Your task to perform on an android device: turn off picture-in-picture Image 0: 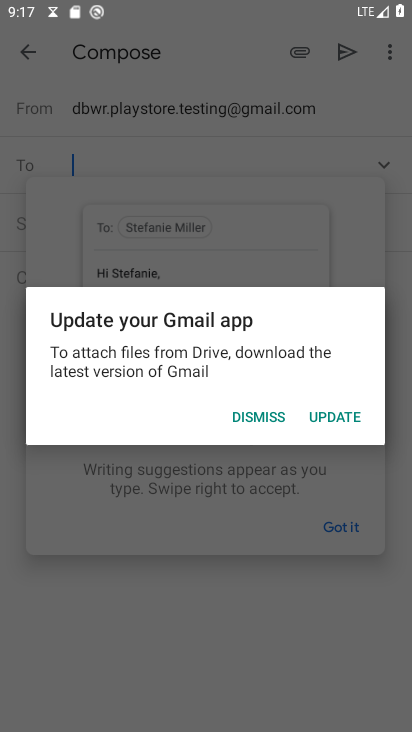
Step 0: press home button
Your task to perform on an android device: turn off picture-in-picture Image 1: 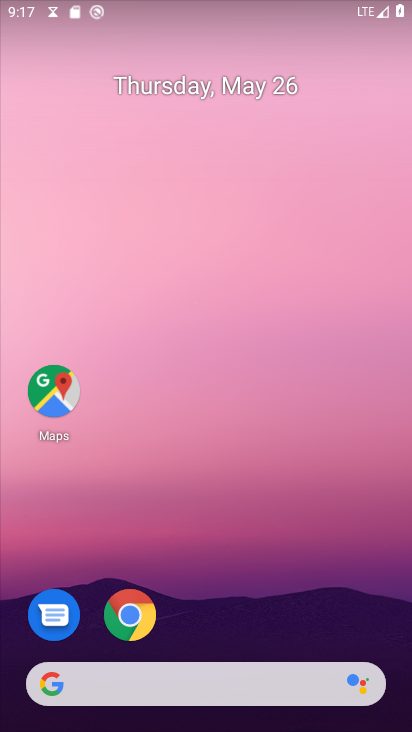
Step 1: drag from (236, 615) to (235, 239)
Your task to perform on an android device: turn off picture-in-picture Image 2: 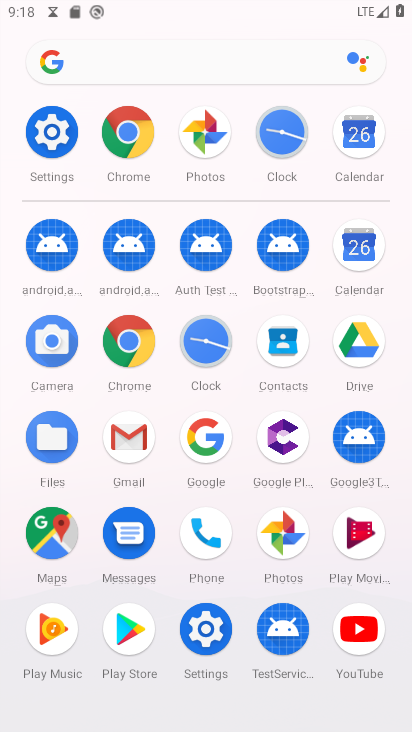
Step 2: click (21, 117)
Your task to perform on an android device: turn off picture-in-picture Image 3: 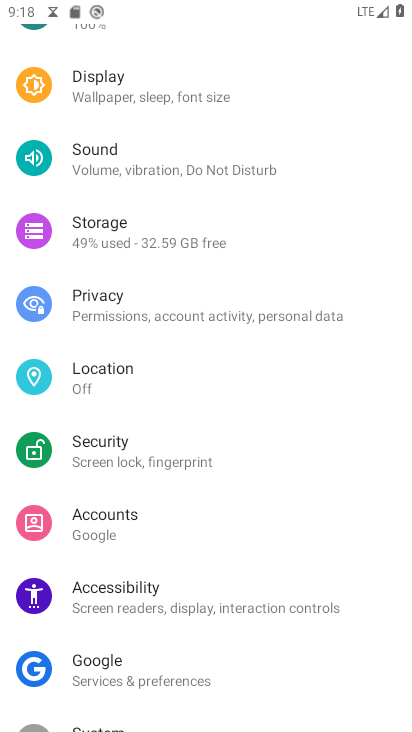
Step 3: drag from (266, 120) to (211, 635)
Your task to perform on an android device: turn off picture-in-picture Image 4: 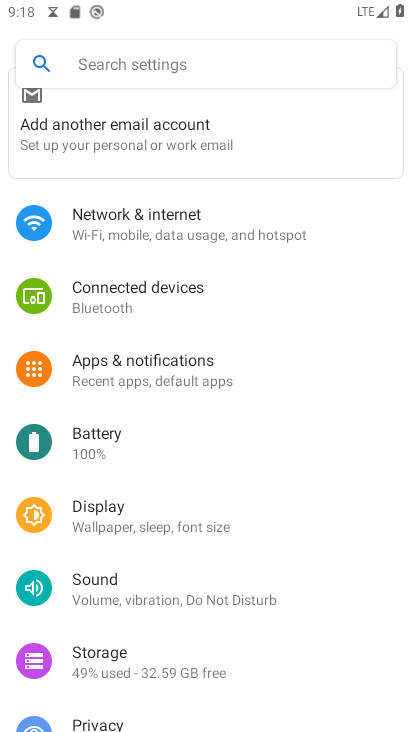
Step 4: click (173, 372)
Your task to perform on an android device: turn off picture-in-picture Image 5: 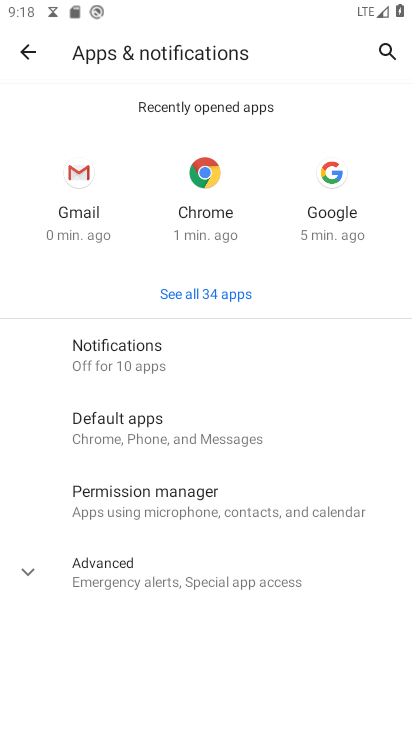
Step 5: click (136, 348)
Your task to perform on an android device: turn off picture-in-picture Image 6: 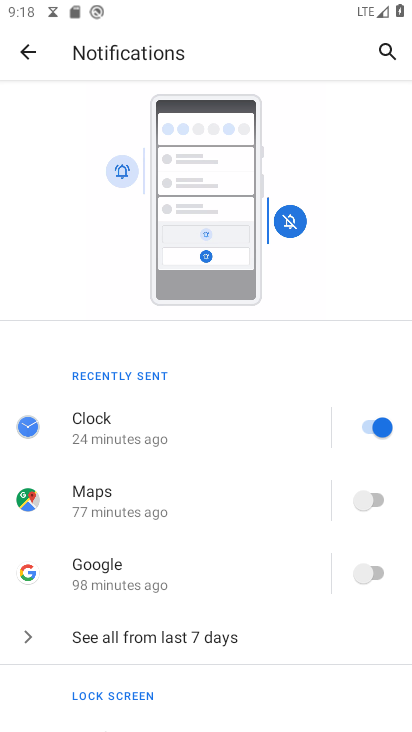
Step 6: drag from (212, 668) to (195, 340)
Your task to perform on an android device: turn off picture-in-picture Image 7: 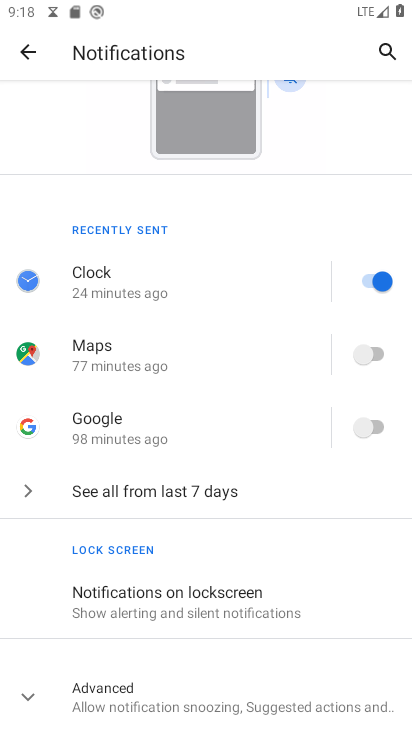
Step 7: click (142, 588)
Your task to perform on an android device: turn off picture-in-picture Image 8: 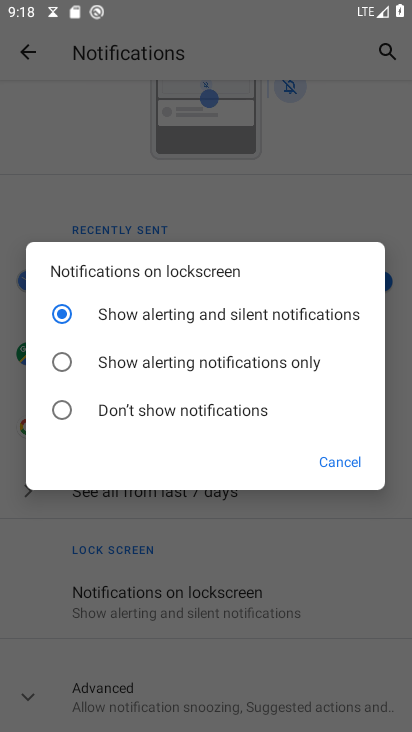
Step 8: click (331, 463)
Your task to perform on an android device: turn off picture-in-picture Image 9: 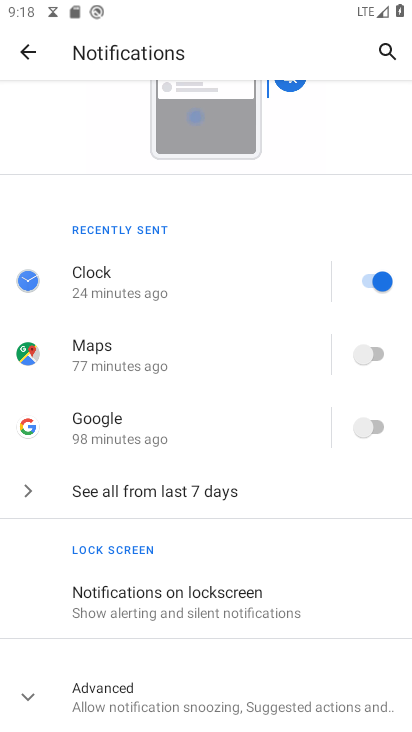
Step 9: drag from (175, 635) to (192, 341)
Your task to perform on an android device: turn off picture-in-picture Image 10: 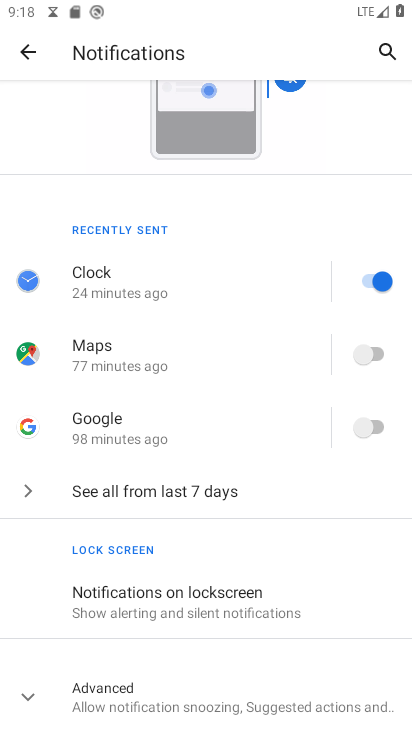
Step 10: click (201, 702)
Your task to perform on an android device: turn off picture-in-picture Image 11: 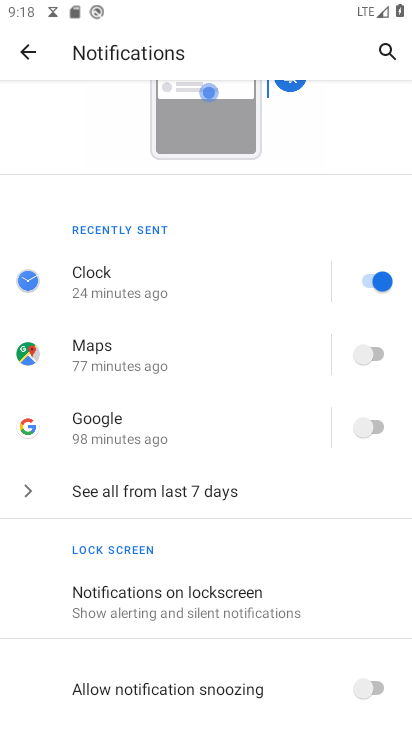
Step 11: drag from (197, 630) to (220, 183)
Your task to perform on an android device: turn off picture-in-picture Image 12: 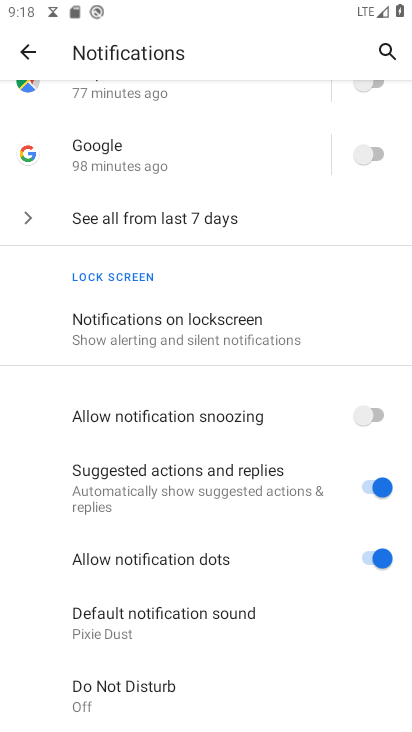
Step 12: click (31, 51)
Your task to perform on an android device: turn off picture-in-picture Image 13: 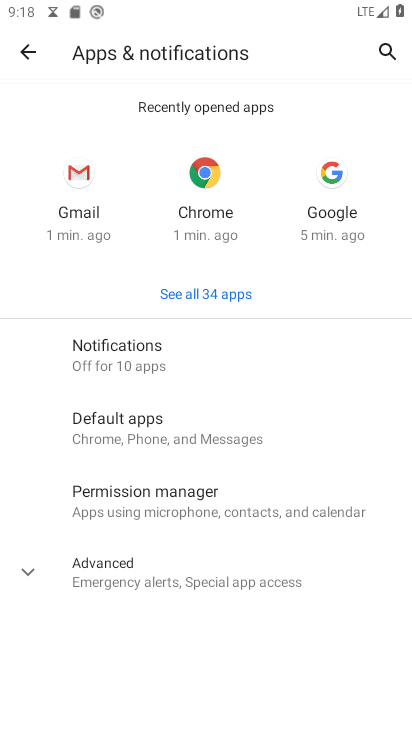
Step 13: click (207, 566)
Your task to perform on an android device: turn off picture-in-picture Image 14: 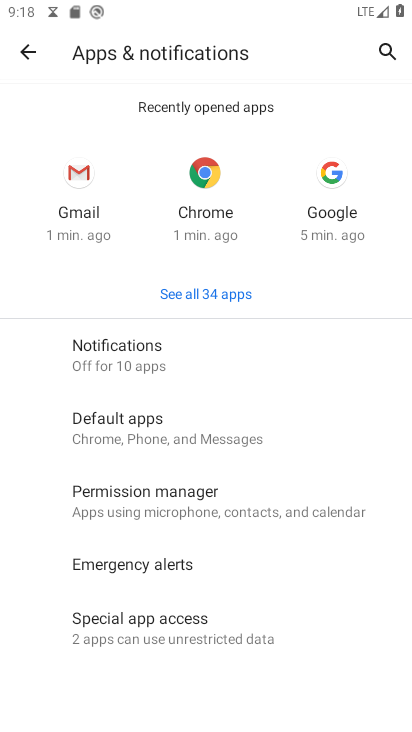
Step 14: click (213, 640)
Your task to perform on an android device: turn off picture-in-picture Image 15: 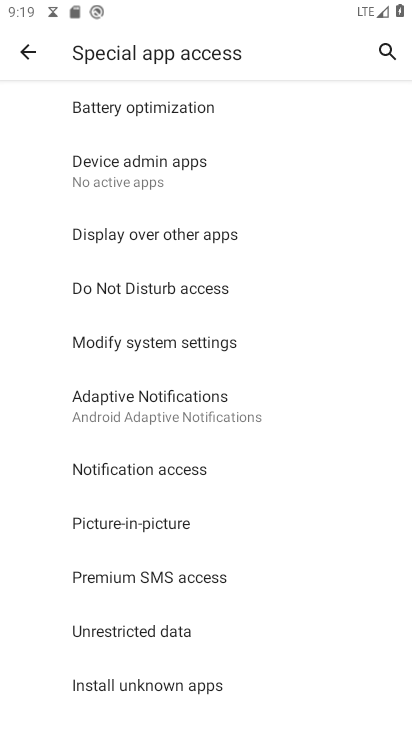
Step 15: click (162, 530)
Your task to perform on an android device: turn off picture-in-picture Image 16: 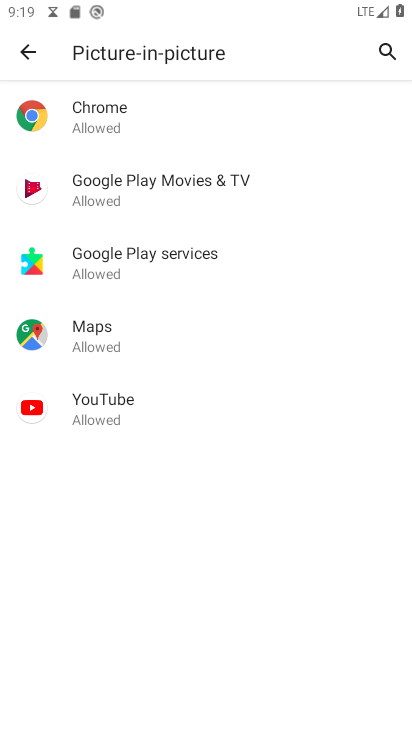
Step 16: click (111, 410)
Your task to perform on an android device: turn off picture-in-picture Image 17: 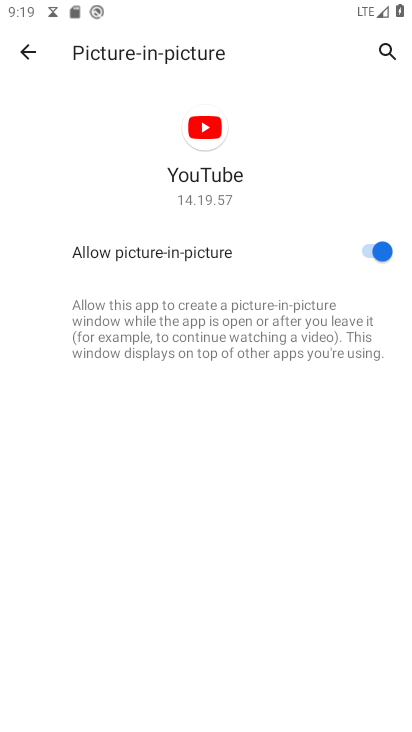
Step 17: click (374, 263)
Your task to perform on an android device: turn off picture-in-picture Image 18: 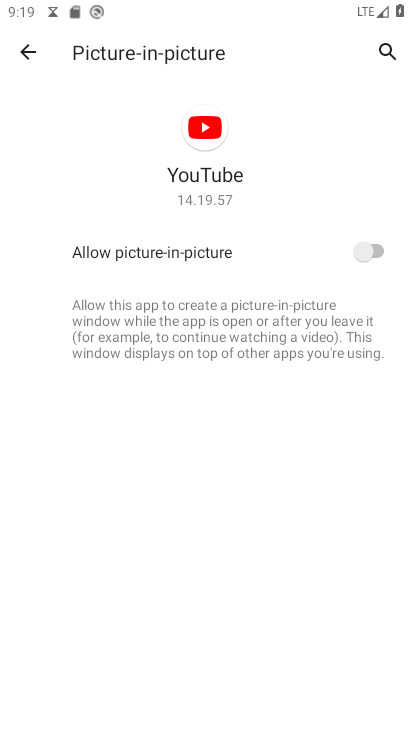
Step 18: task complete